Your task to perform on an android device: Is it going to rain this weekend? Image 0: 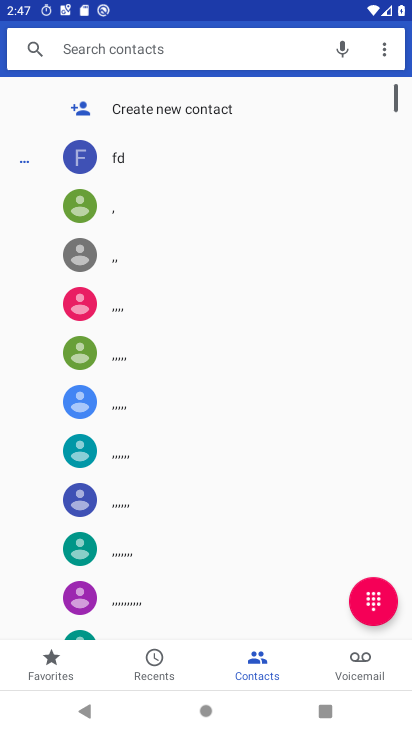
Step 0: press home button
Your task to perform on an android device: Is it going to rain this weekend? Image 1: 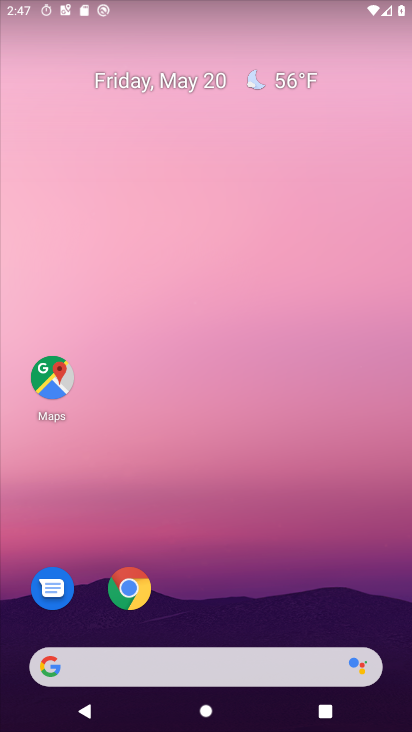
Step 1: click (109, 657)
Your task to perform on an android device: Is it going to rain this weekend? Image 2: 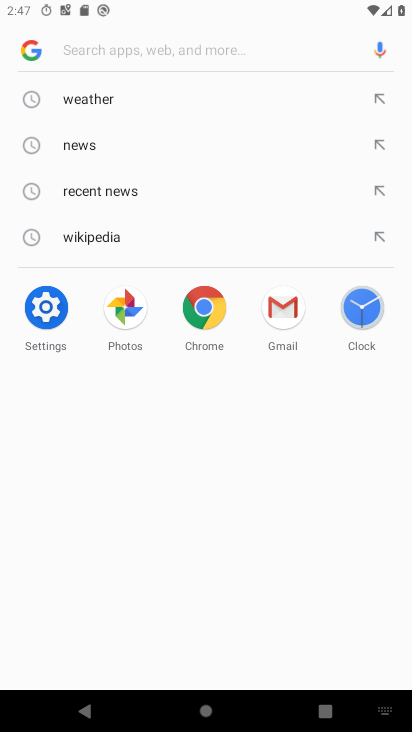
Step 2: click (97, 101)
Your task to perform on an android device: Is it going to rain this weekend? Image 3: 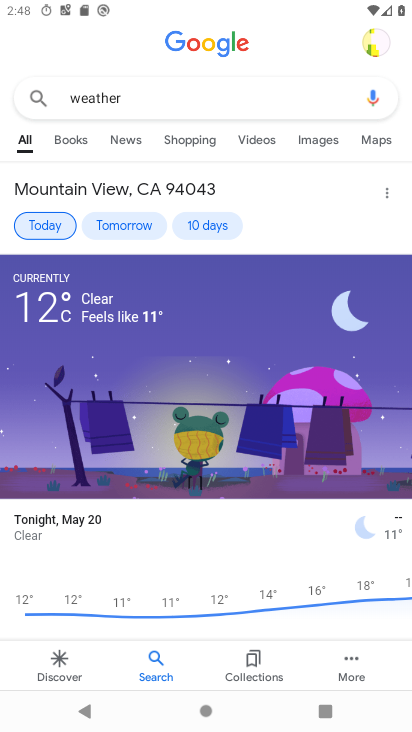
Step 3: task complete